Your task to perform on an android device: Go to wifi settings Image 0: 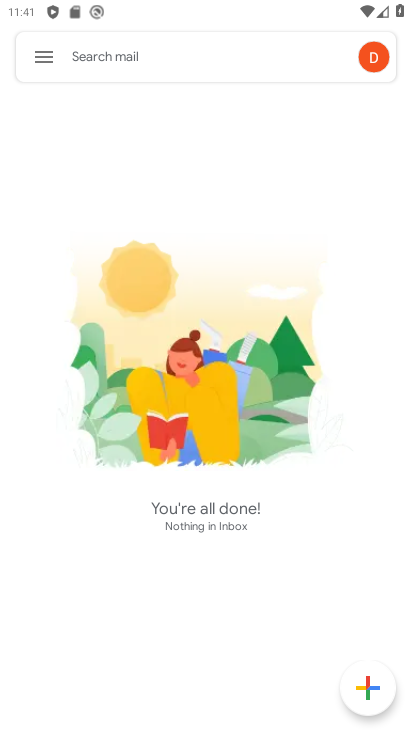
Step 0: press home button
Your task to perform on an android device: Go to wifi settings Image 1: 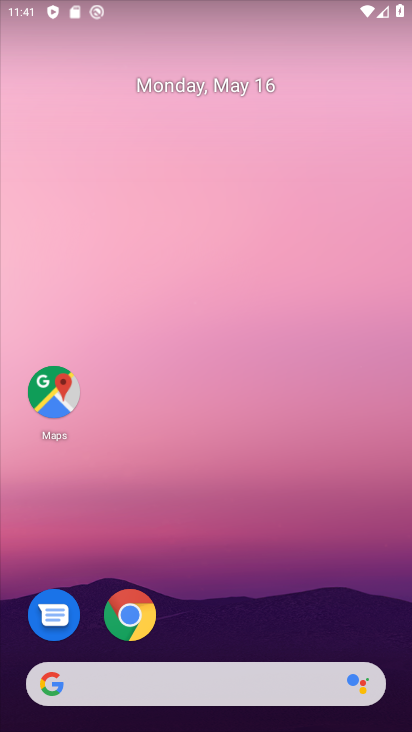
Step 1: click (271, 551)
Your task to perform on an android device: Go to wifi settings Image 2: 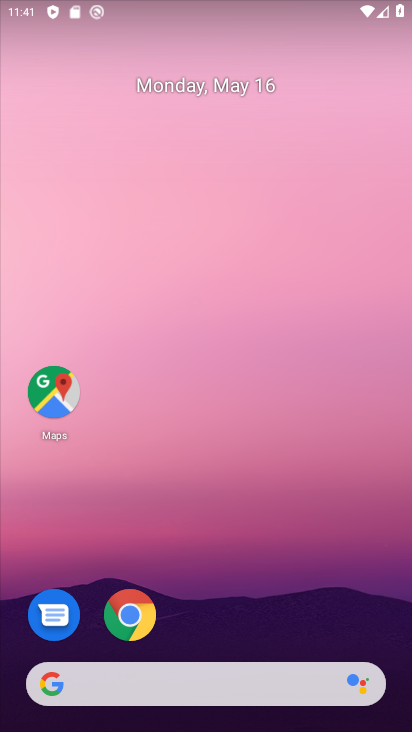
Step 2: drag from (271, 551) to (229, 77)
Your task to perform on an android device: Go to wifi settings Image 3: 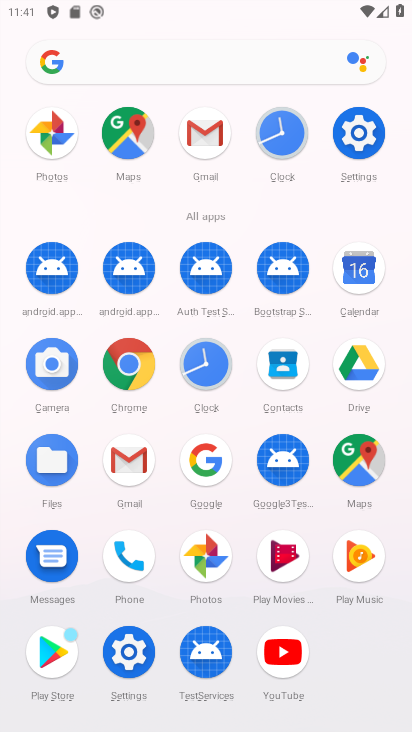
Step 3: click (373, 147)
Your task to perform on an android device: Go to wifi settings Image 4: 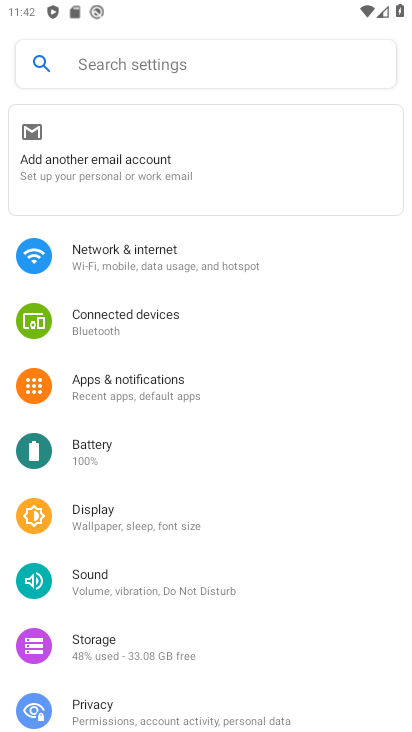
Step 4: click (193, 248)
Your task to perform on an android device: Go to wifi settings Image 5: 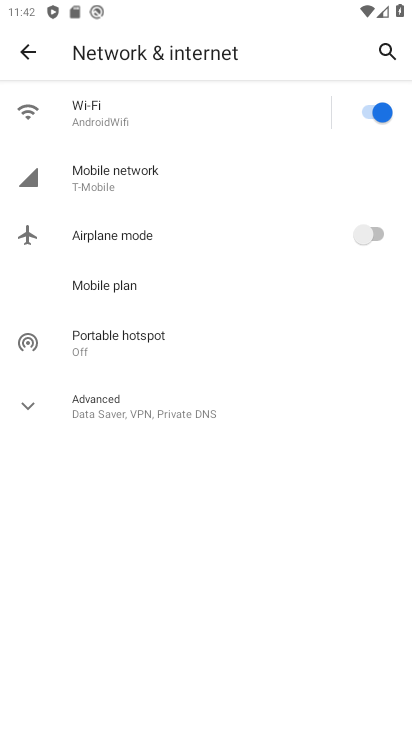
Step 5: task complete